Your task to perform on an android device: turn off improve location accuracy Image 0: 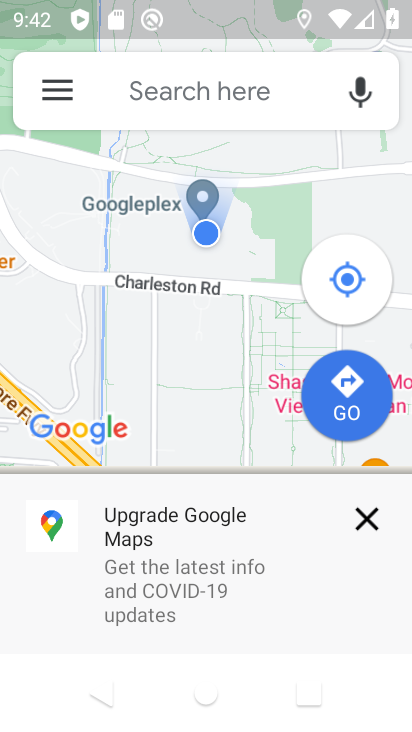
Step 0: press home button
Your task to perform on an android device: turn off improve location accuracy Image 1: 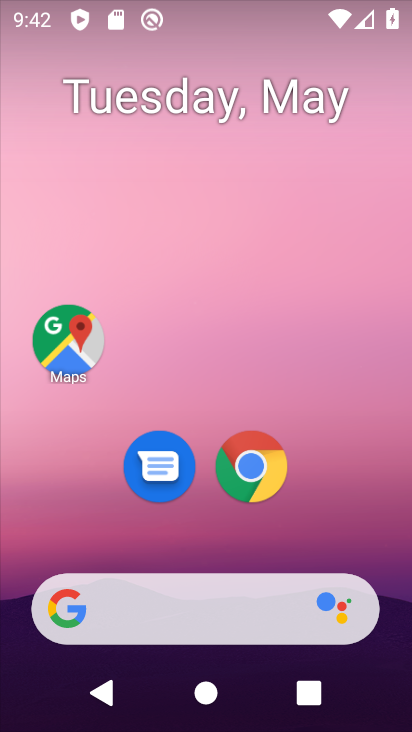
Step 1: drag from (66, 545) to (185, 104)
Your task to perform on an android device: turn off improve location accuracy Image 2: 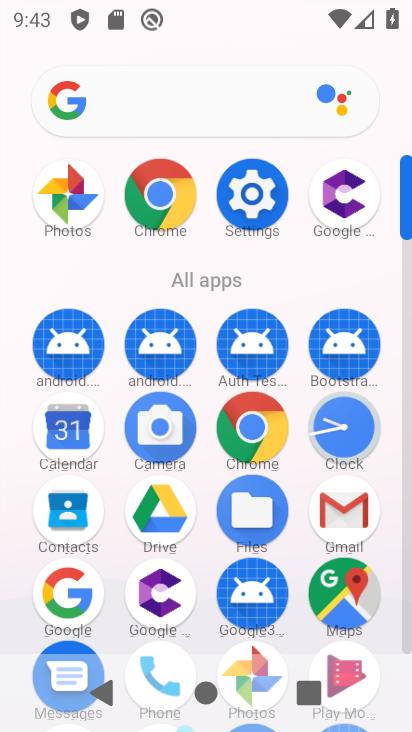
Step 2: drag from (137, 607) to (205, 241)
Your task to perform on an android device: turn off improve location accuracy Image 3: 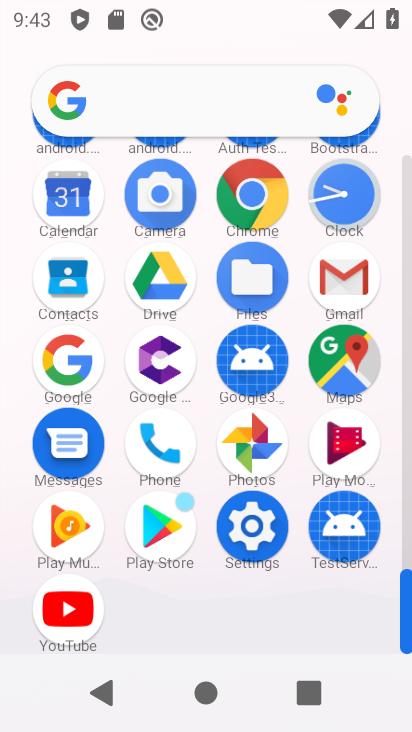
Step 3: click (267, 531)
Your task to perform on an android device: turn off improve location accuracy Image 4: 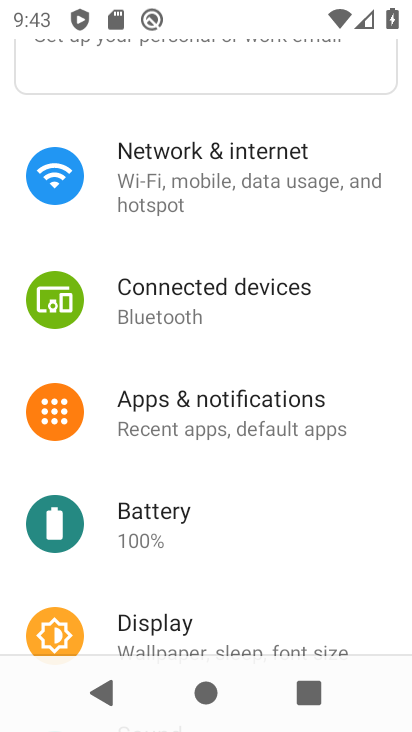
Step 4: drag from (112, 579) to (216, 211)
Your task to perform on an android device: turn off improve location accuracy Image 5: 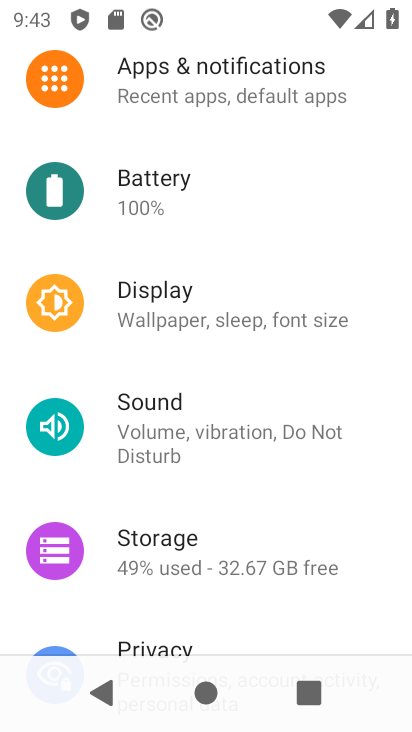
Step 5: drag from (103, 608) to (223, 124)
Your task to perform on an android device: turn off improve location accuracy Image 6: 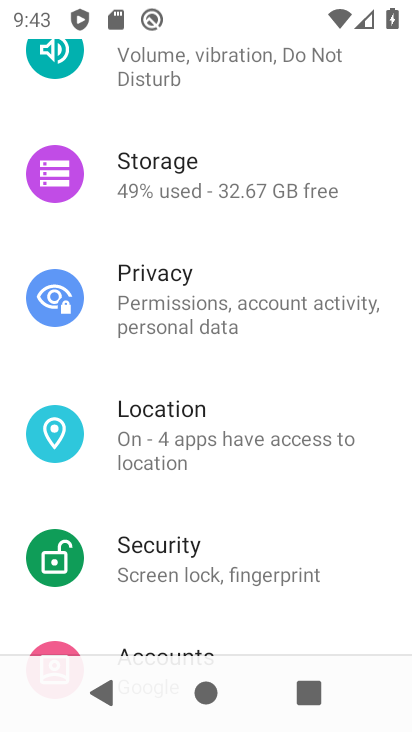
Step 6: click (176, 466)
Your task to perform on an android device: turn off improve location accuracy Image 7: 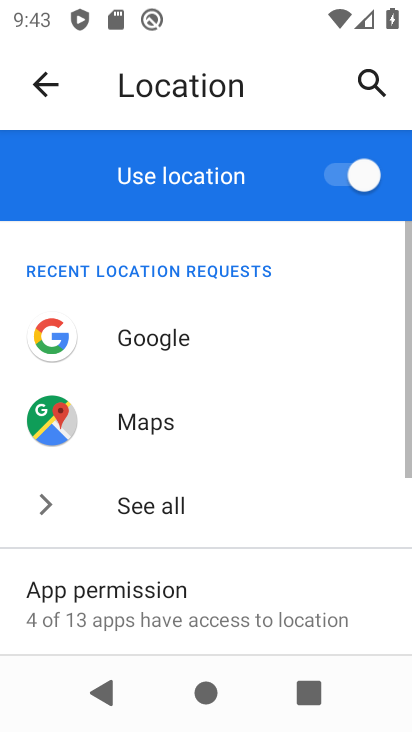
Step 7: drag from (121, 574) to (228, 234)
Your task to perform on an android device: turn off improve location accuracy Image 8: 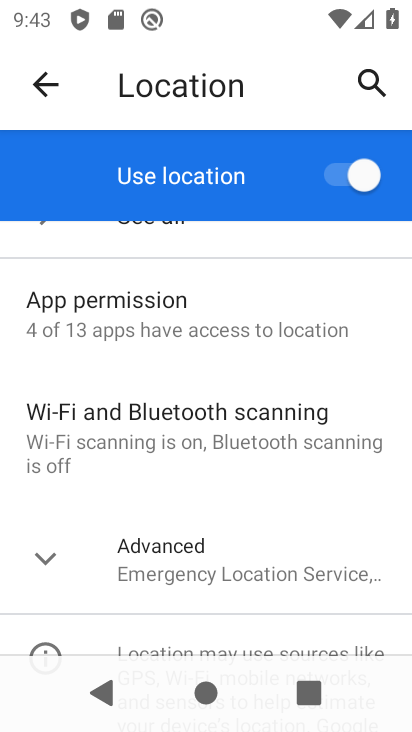
Step 8: click (184, 586)
Your task to perform on an android device: turn off improve location accuracy Image 9: 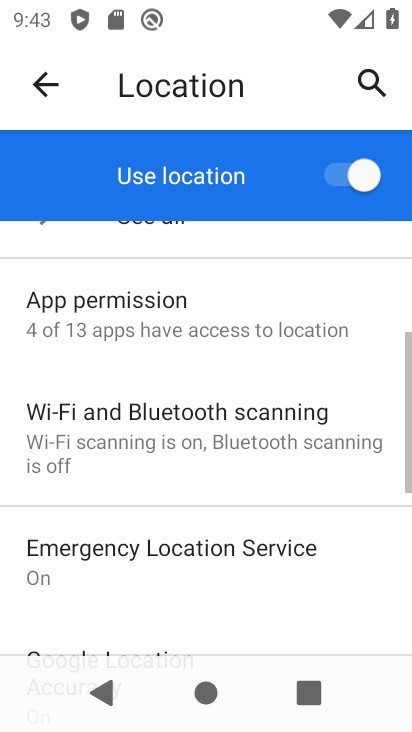
Step 9: drag from (177, 619) to (299, 222)
Your task to perform on an android device: turn off improve location accuracy Image 10: 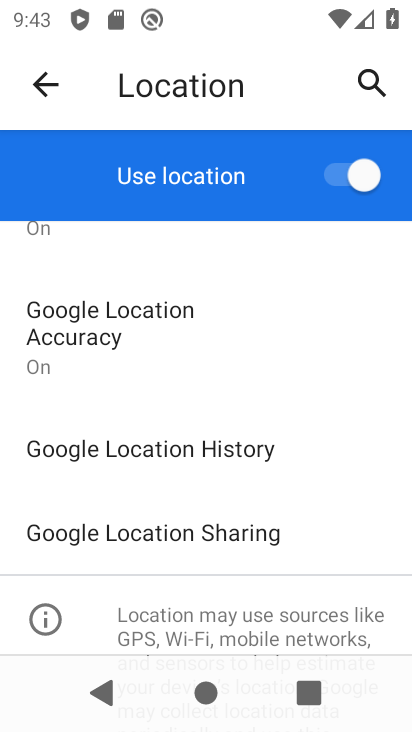
Step 10: click (170, 330)
Your task to perform on an android device: turn off improve location accuracy Image 11: 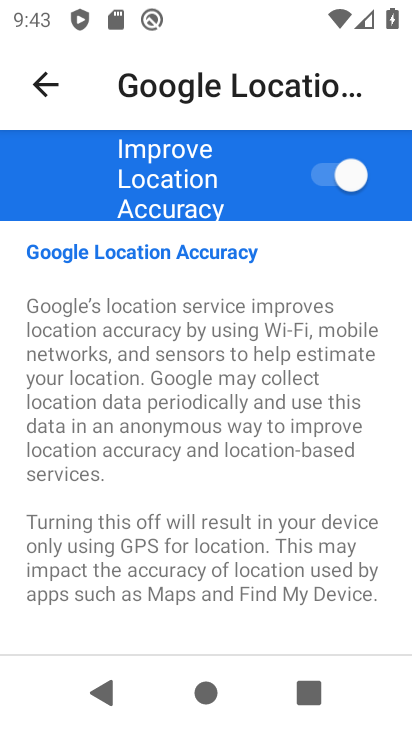
Step 11: click (324, 168)
Your task to perform on an android device: turn off improve location accuracy Image 12: 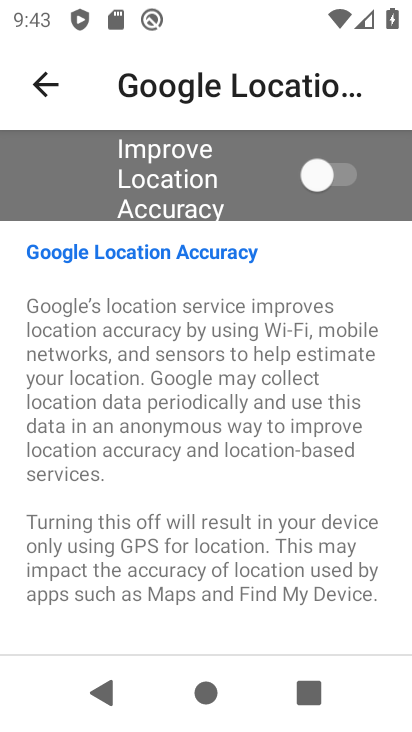
Step 12: task complete